Your task to perform on an android device: Go to eBay Image 0: 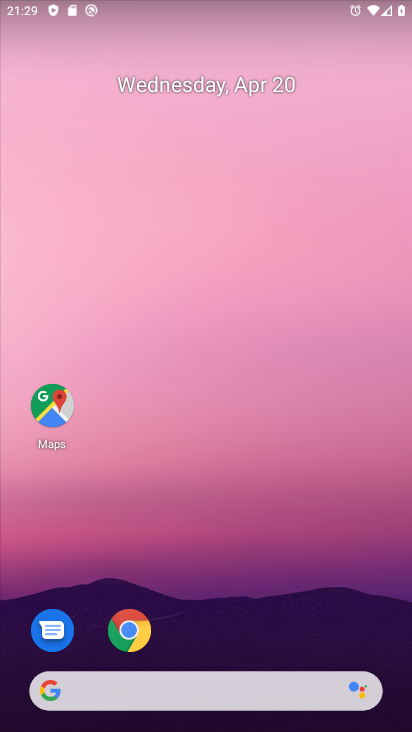
Step 0: drag from (243, 607) to (206, 214)
Your task to perform on an android device: Go to eBay Image 1: 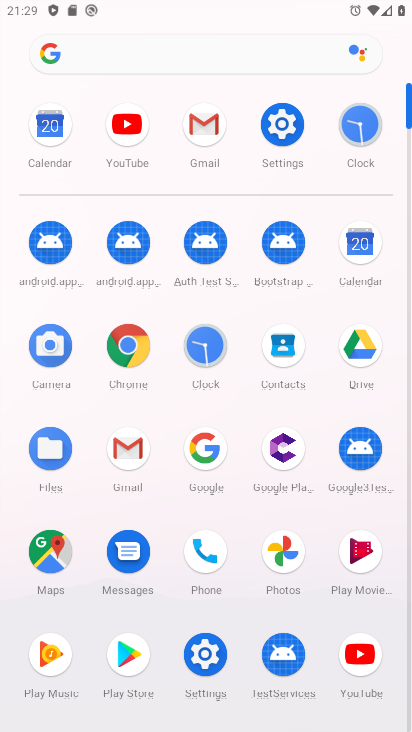
Step 1: click (131, 342)
Your task to perform on an android device: Go to eBay Image 2: 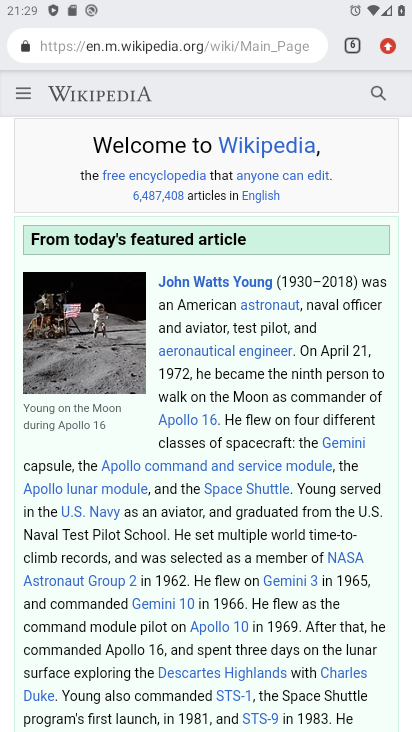
Step 2: click (350, 44)
Your task to perform on an android device: Go to eBay Image 3: 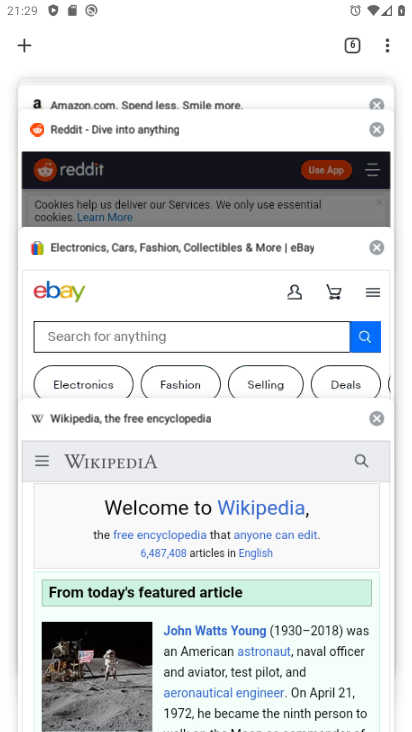
Step 3: click (158, 268)
Your task to perform on an android device: Go to eBay Image 4: 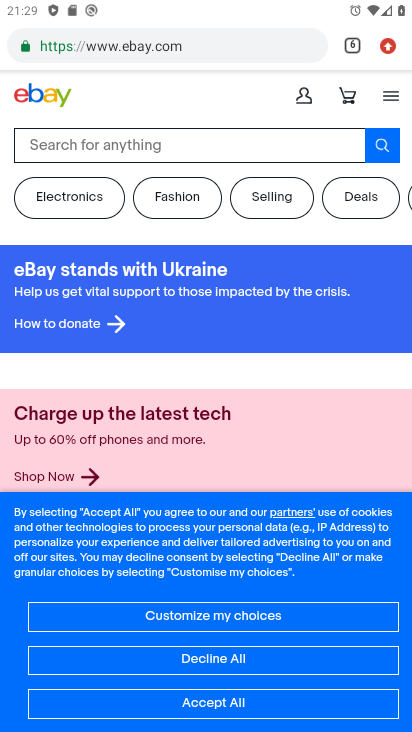
Step 4: task complete